Your task to perform on an android device: turn on airplane mode Image 0: 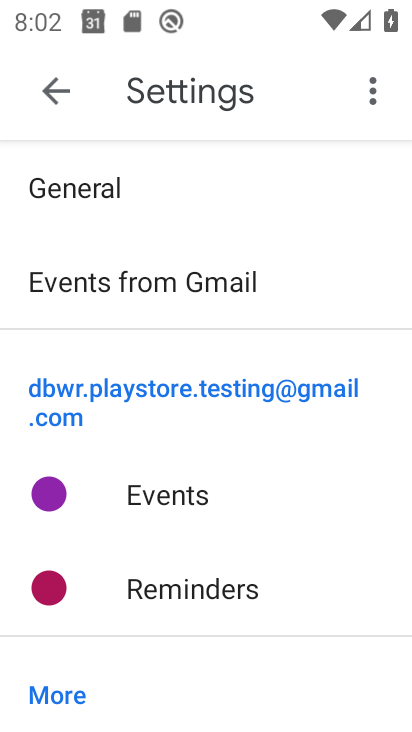
Step 0: press home button
Your task to perform on an android device: turn on airplane mode Image 1: 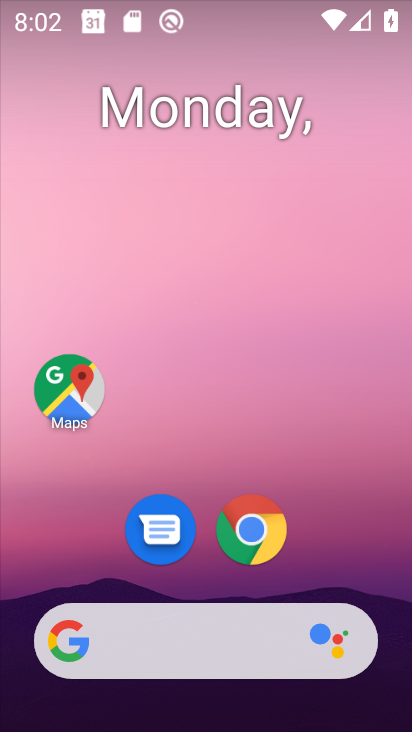
Step 1: drag from (225, 573) to (210, 289)
Your task to perform on an android device: turn on airplane mode Image 2: 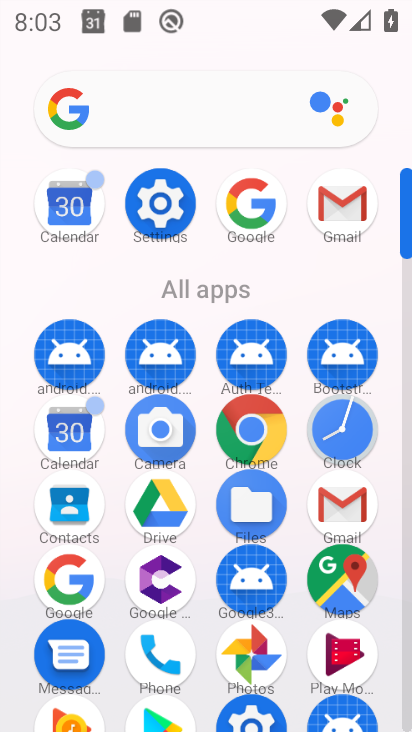
Step 2: click (165, 197)
Your task to perform on an android device: turn on airplane mode Image 3: 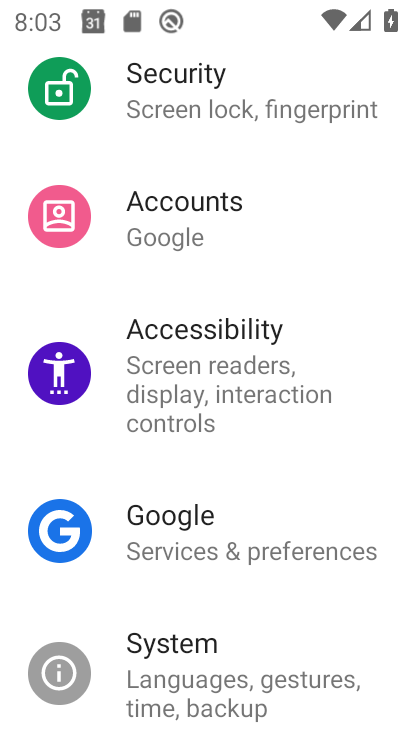
Step 3: drag from (311, 98) to (333, 663)
Your task to perform on an android device: turn on airplane mode Image 4: 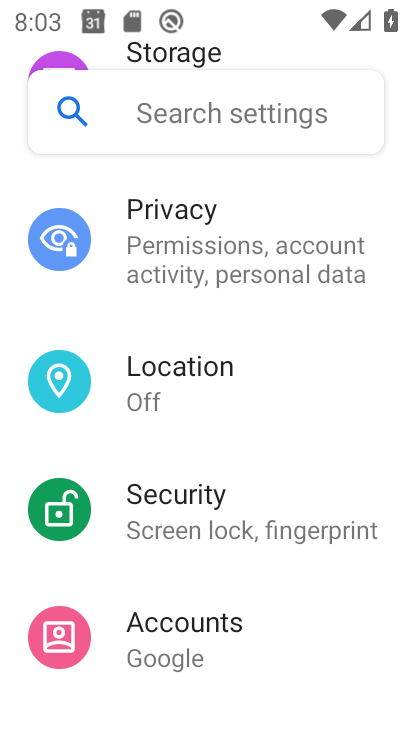
Step 4: drag from (323, 196) to (335, 729)
Your task to perform on an android device: turn on airplane mode Image 5: 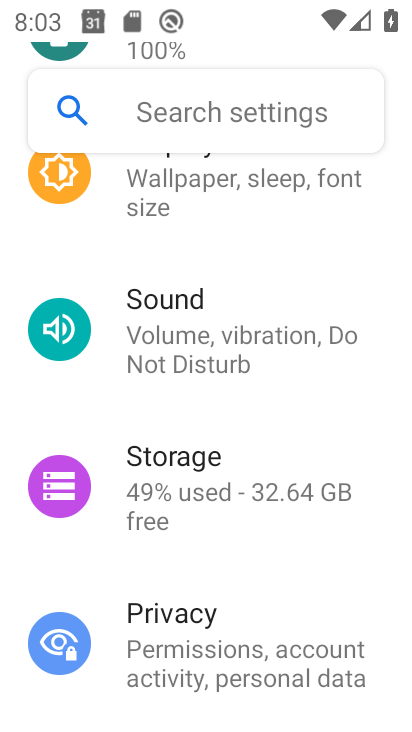
Step 5: drag from (261, 170) to (313, 713)
Your task to perform on an android device: turn on airplane mode Image 6: 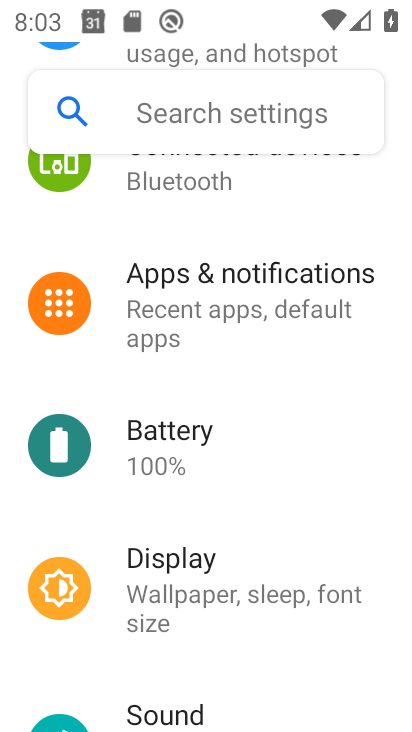
Step 6: drag from (245, 194) to (310, 701)
Your task to perform on an android device: turn on airplane mode Image 7: 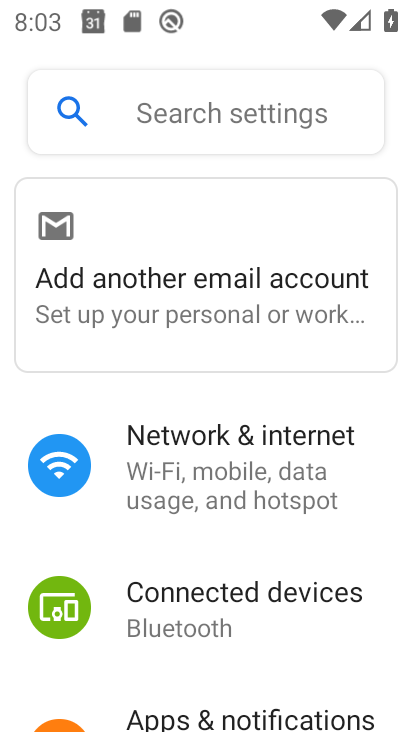
Step 7: click (245, 462)
Your task to perform on an android device: turn on airplane mode Image 8: 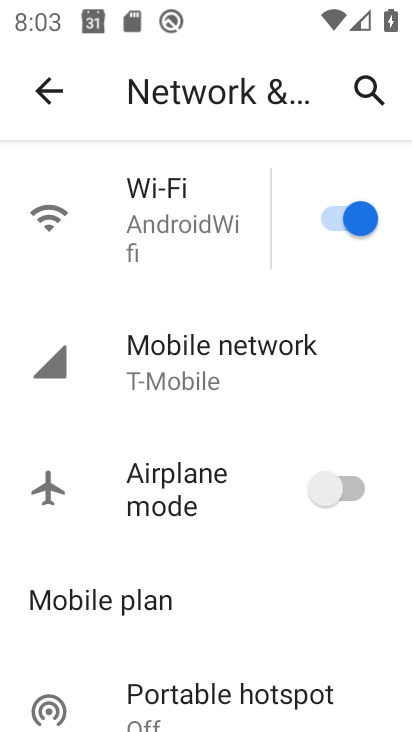
Step 8: click (348, 497)
Your task to perform on an android device: turn on airplane mode Image 9: 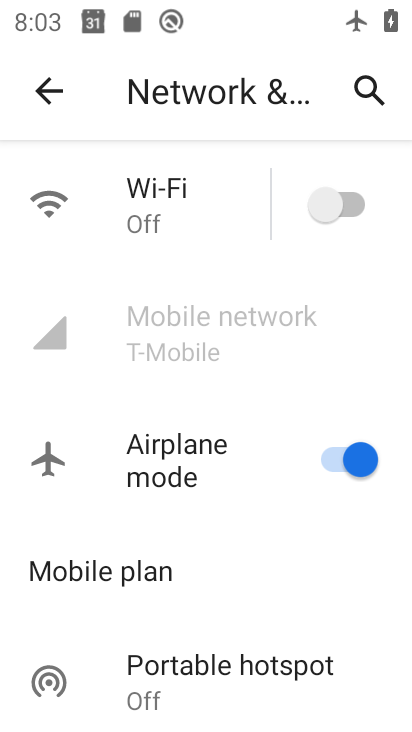
Step 9: task complete